Your task to perform on an android device: open app "Messenger Lite" Image 0: 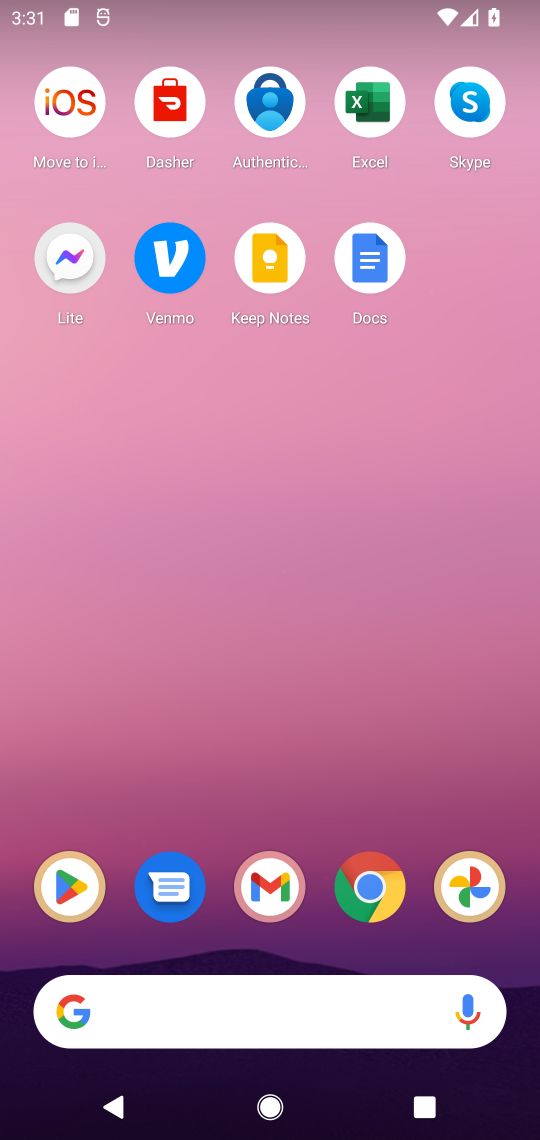
Step 0: click (70, 898)
Your task to perform on an android device: open app "Messenger Lite" Image 1: 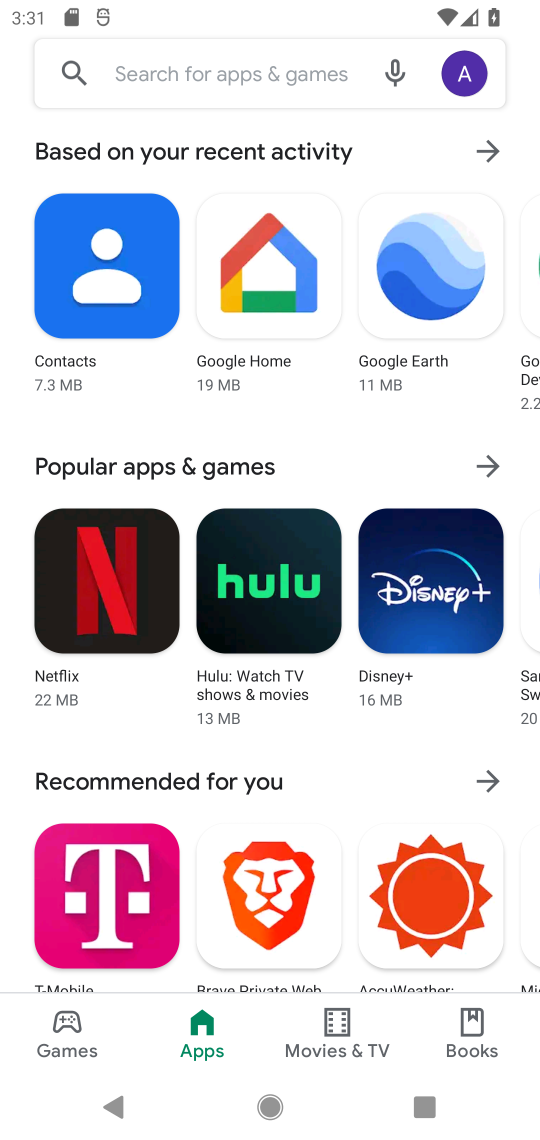
Step 1: click (121, 71)
Your task to perform on an android device: open app "Messenger Lite" Image 2: 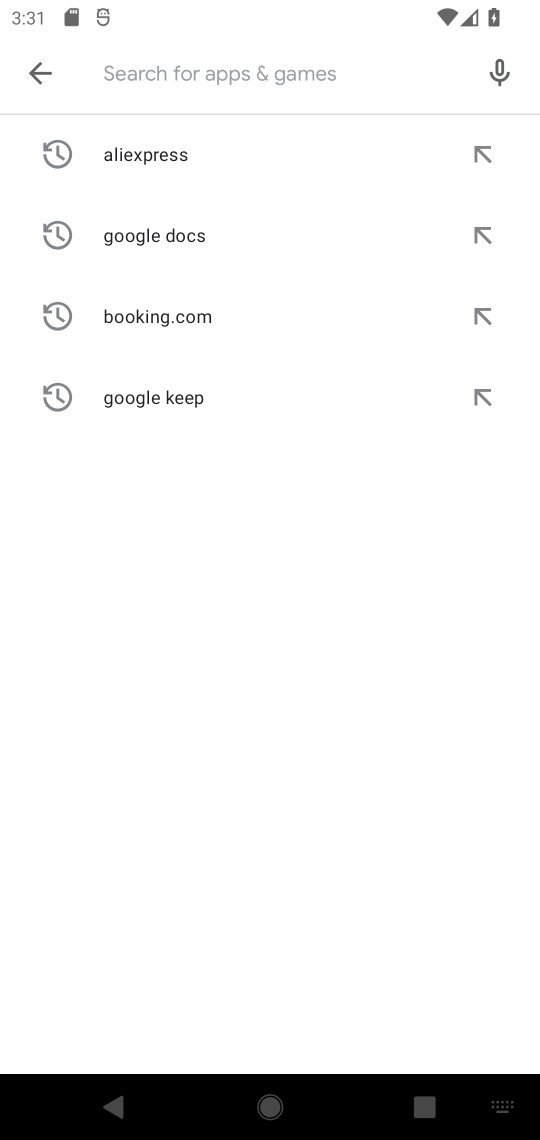
Step 2: type "Messenger Lite"
Your task to perform on an android device: open app "Messenger Lite" Image 3: 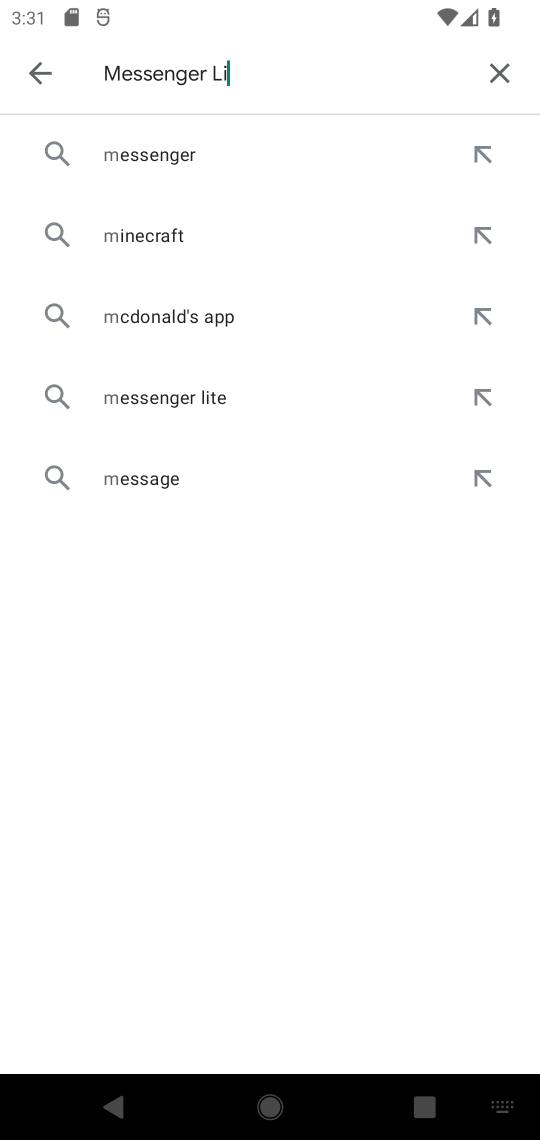
Step 3: type ""
Your task to perform on an android device: open app "Messenger Lite" Image 4: 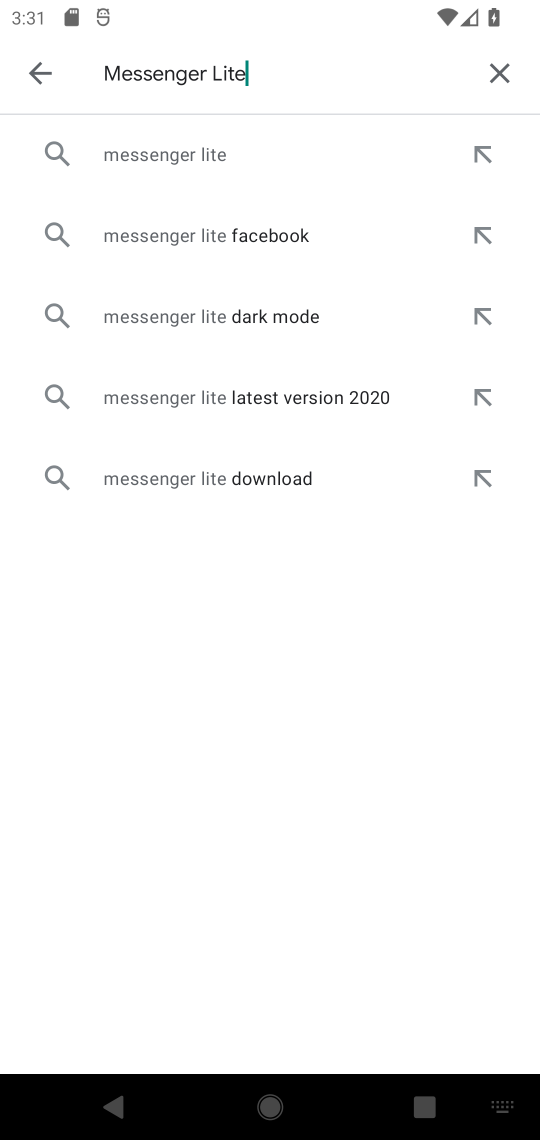
Step 4: click (209, 145)
Your task to perform on an android device: open app "Messenger Lite" Image 5: 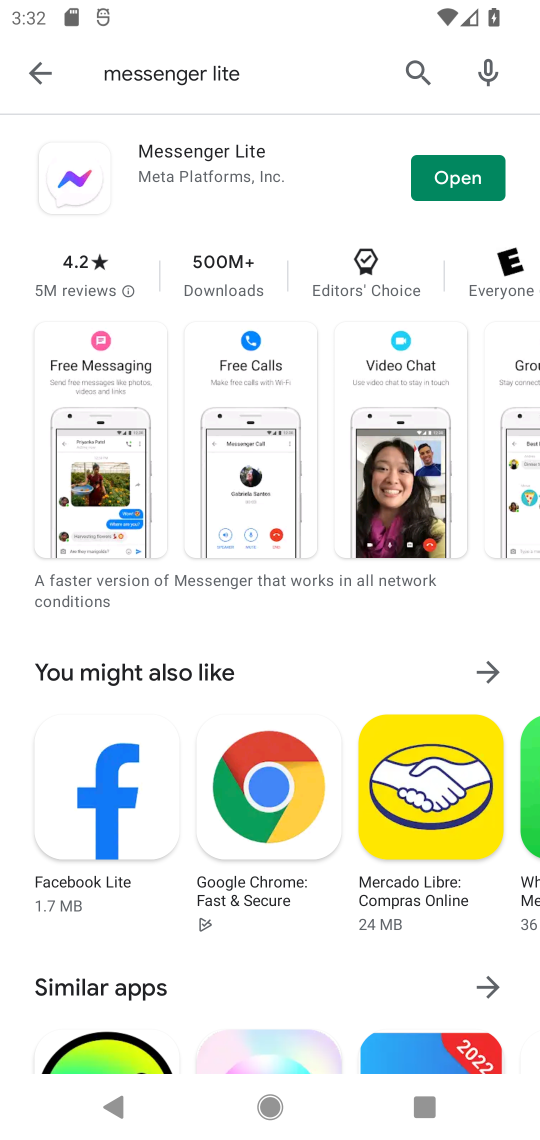
Step 5: task complete